Your task to perform on an android device: Open Chrome and go to settings Image 0: 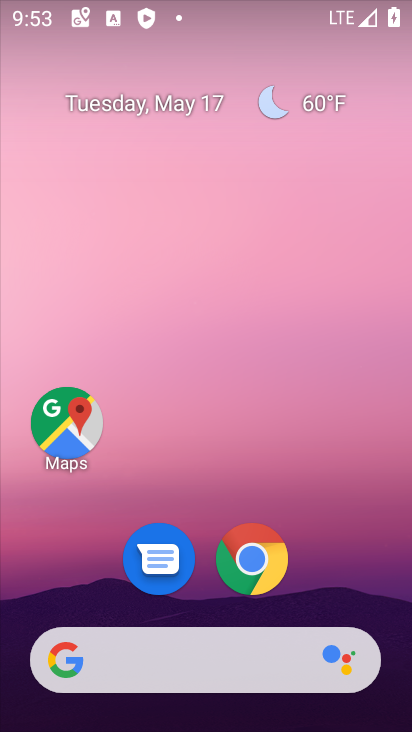
Step 0: click (236, 580)
Your task to perform on an android device: Open Chrome and go to settings Image 1: 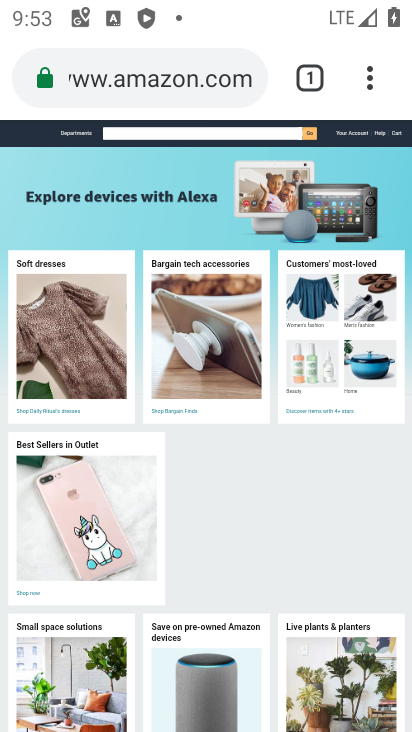
Step 1: task complete